Your task to perform on an android device: Do I have any events this weekend? Image 0: 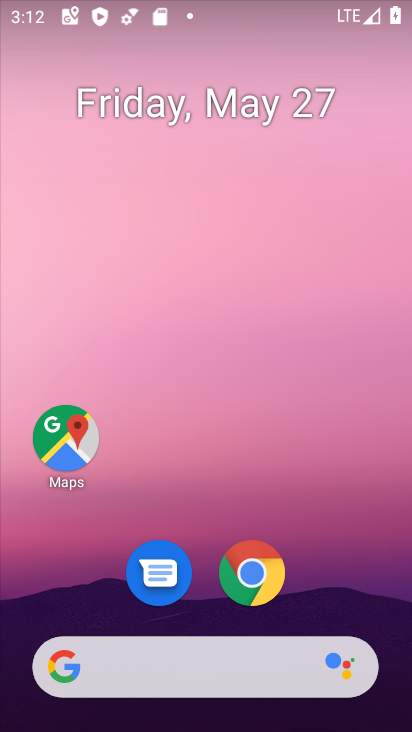
Step 0: drag from (237, 484) to (235, 28)
Your task to perform on an android device: Do I have any events this weekend? Image 1: 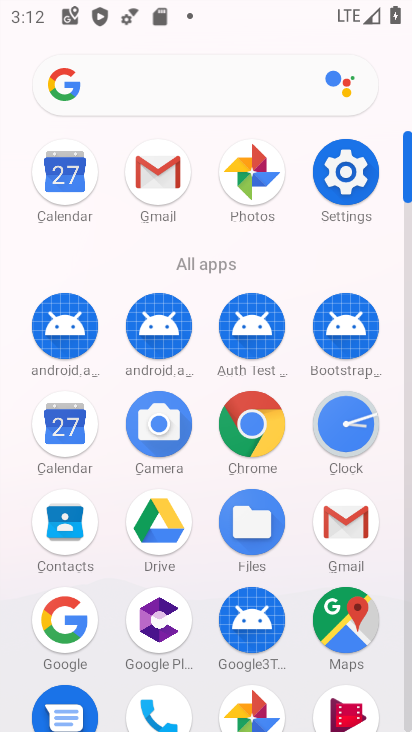
Step 1: click (69, 166)
Your task to perform on an android device: Do I have any events this weekend? Image 2: 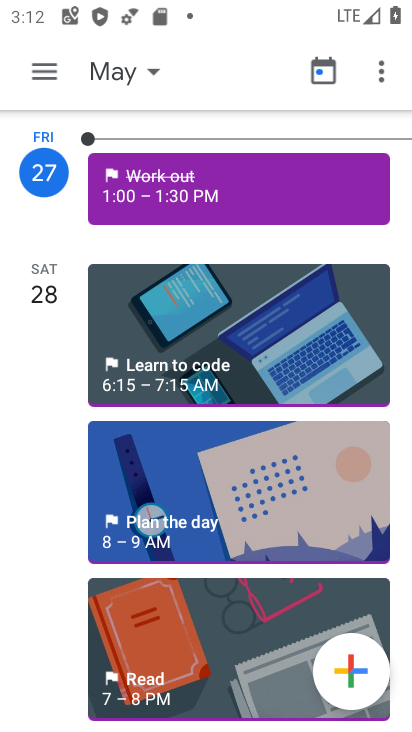
Step 2: task complete